Your task to perform on an android device: turn on improve location accuracy Image 0: 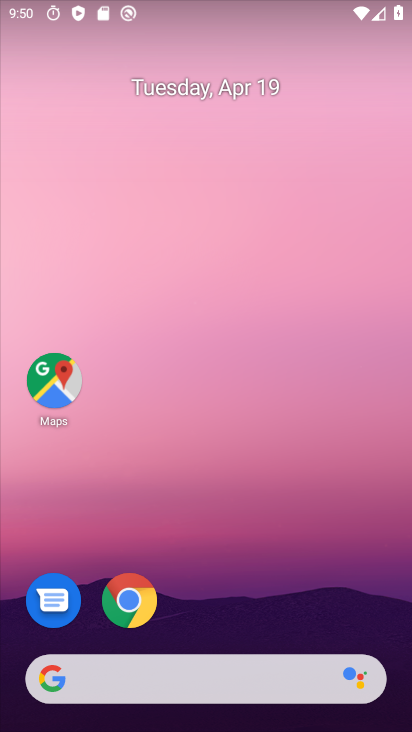
Step 0: drag from (369, 530) to (339, 300)
Your task to perform on an android device: turn on improve location accuracy Image 1: 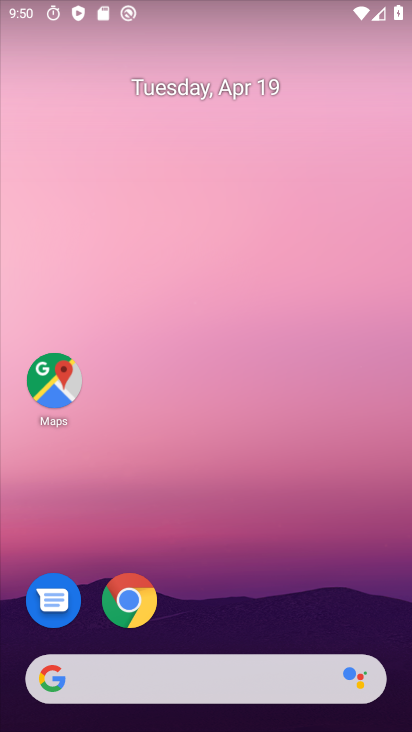
Step 1: drag from (389, 623) to (315, 41)
Your task to perform on an android device: turn on improve location accuracy Image 2: 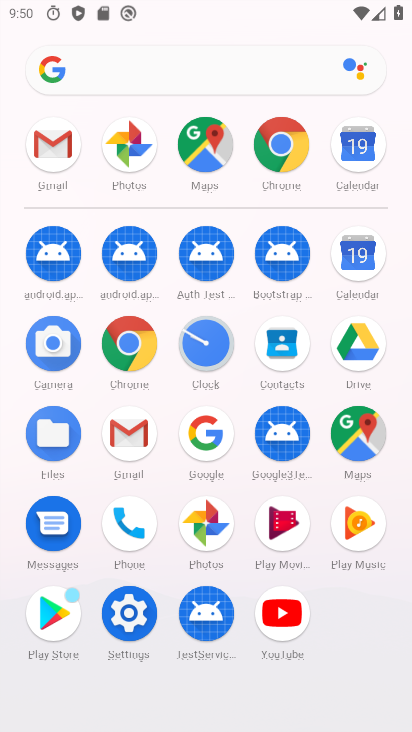
Step 2: click (132, 611)
Your task to perform on an android device: turn on improve location accuracy Image 3: 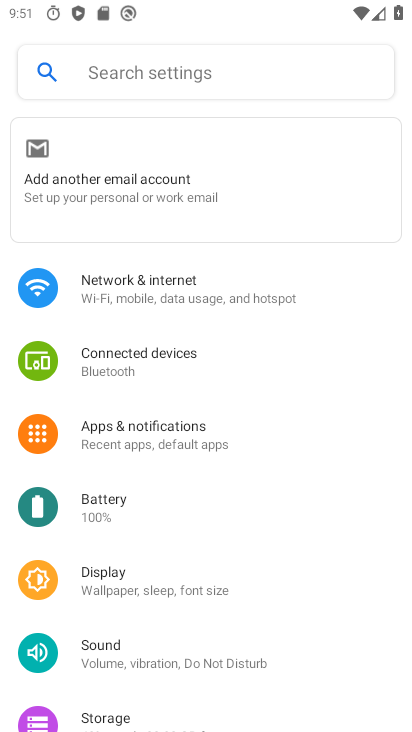
Step 3: drag from (263, 658) to (222, 409)
Your task to perform on an android device: turn on improve location accuracy Image 4: 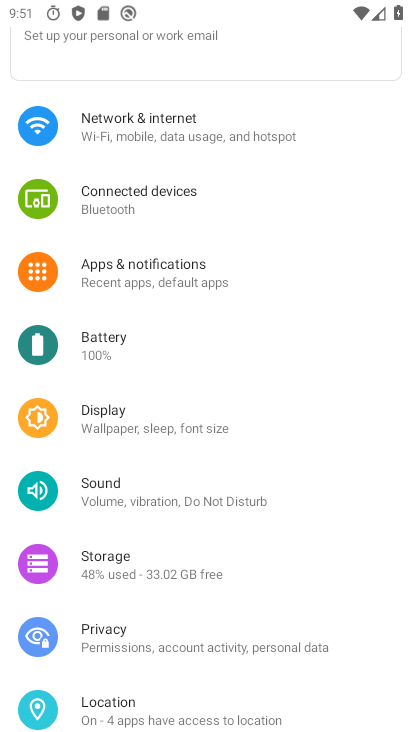
Step 4: click (214, 710)
Your task to perform on an android device: turn on improve location accuracy Image 5: 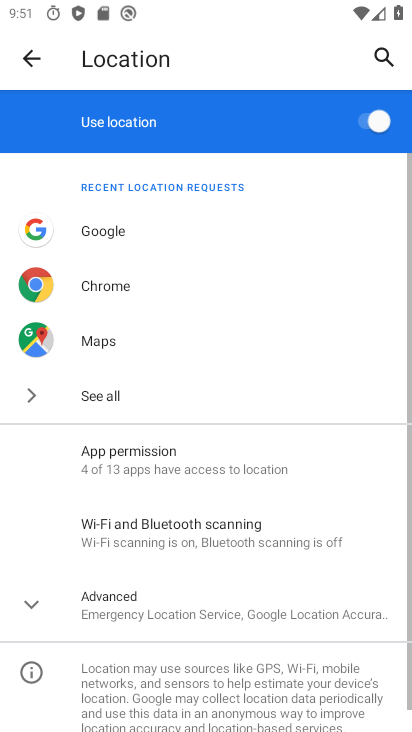
Step 5: click (344, 611)
Your task to perform on an android device: turn on improve location accuracy Image 6: 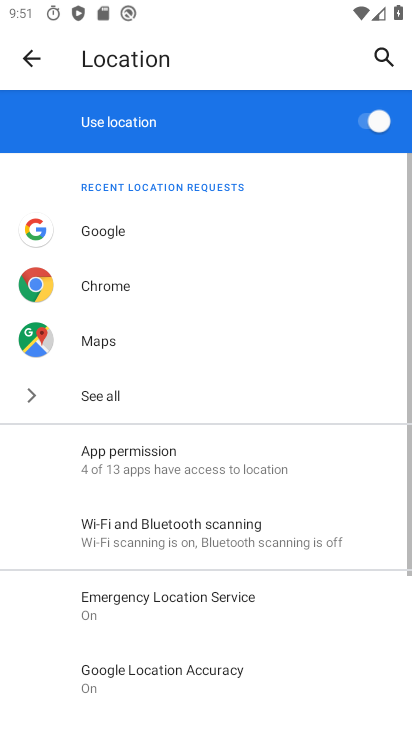
Step 6: drag from (344, 611) to (324, 259)
Your task to perform on an android device: turn on improve location accuracy Image 7: 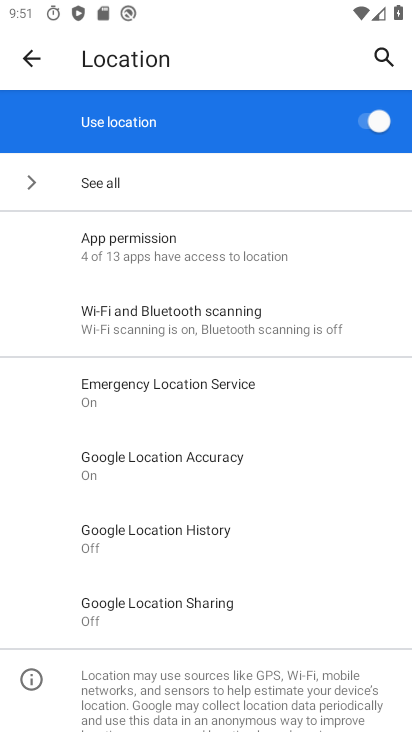
Step 7: click (297, 462)
Your task to perform on an android device: turn on improve location accuracy Image 8: 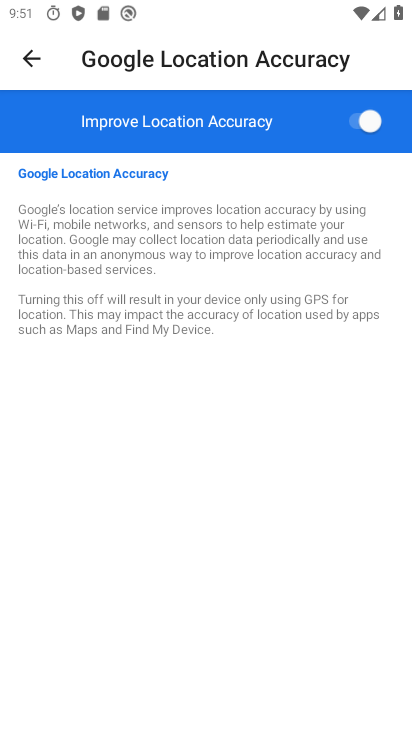
Step 8: task complete